Your task to perform on an android device: open the mobile data screen to see how much data has been used Image 0: 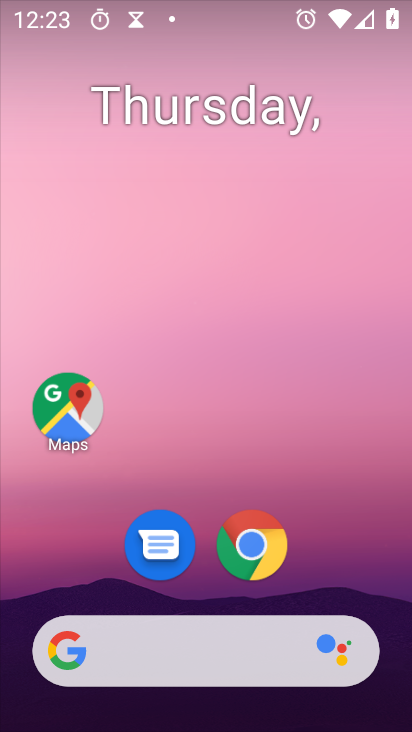
Step 0: press home button
Your task to perform on an android device: open the mobile data screen to see how much data has been used Image 1: 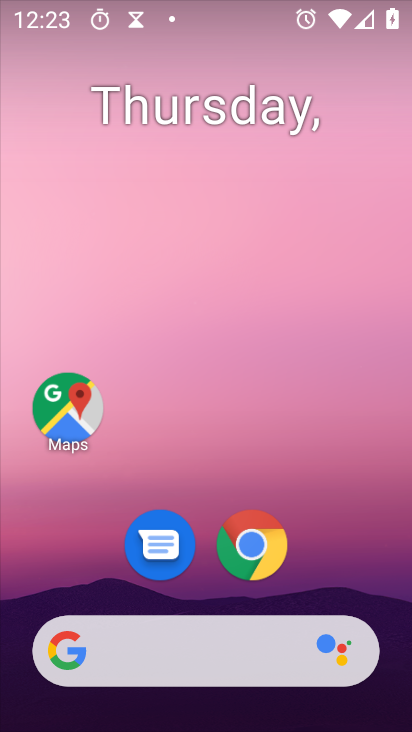
Step 1: drag from (228, 498) to (307, 173)
Your task to perform on an android device: open the mobile data screen to see how much data has been used Image 2: 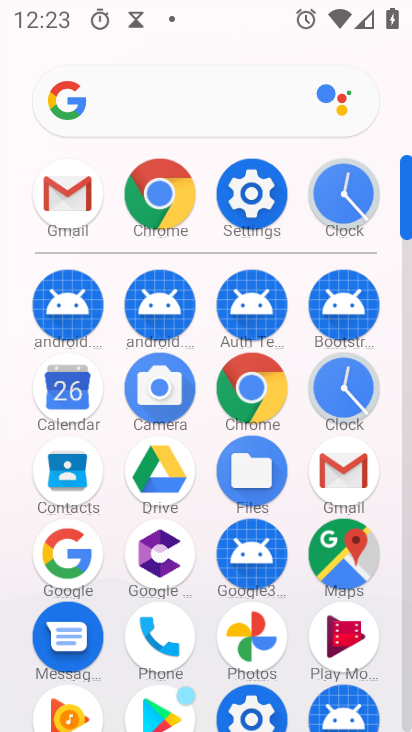
Step 2: click (243, 202)
Your task to perform on an android device: open the mobile data screen to see how much data has been used Image 3: 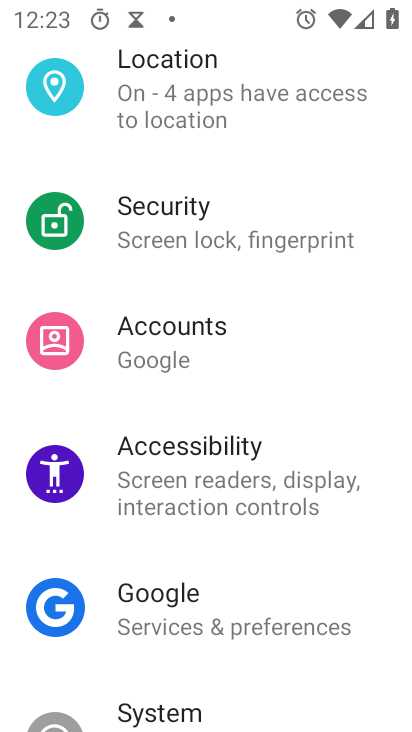
Step 3: drag from (302, 196) to (239, 584)
Your task to perform on an android device: open the mobile data screen to see how much data has been used Image 4: 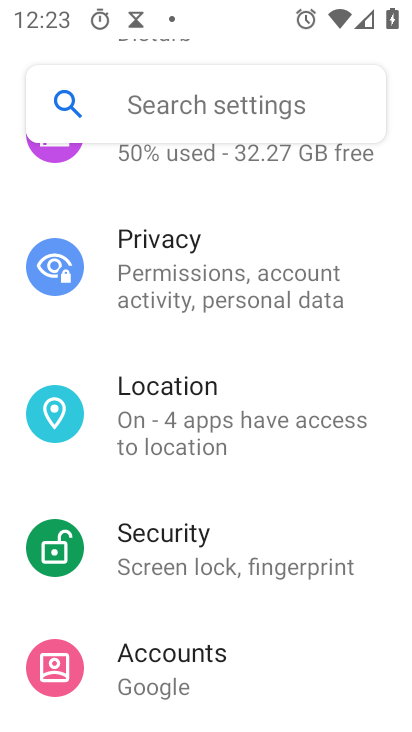
Step 4: drag from (299, 204) to (255, 645)
Your task to perform on an android device: open the mobile data screen to see how much data has been used Image 5: 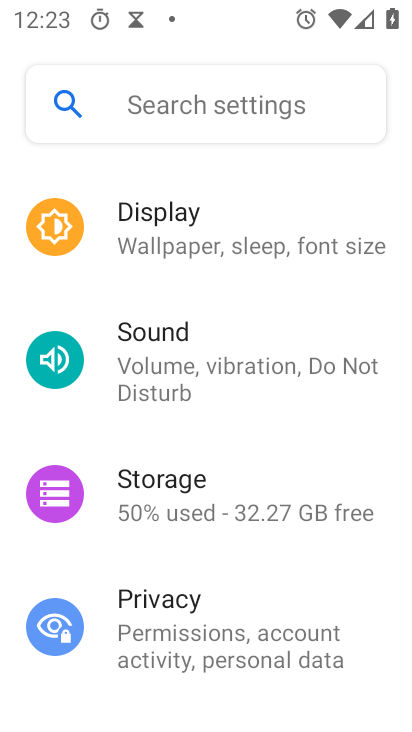
Step 5: drag from (284, 287) to (287, 577)
Your task to perform on an android device: open the mobile data screen to see how much data has been used Image 6: 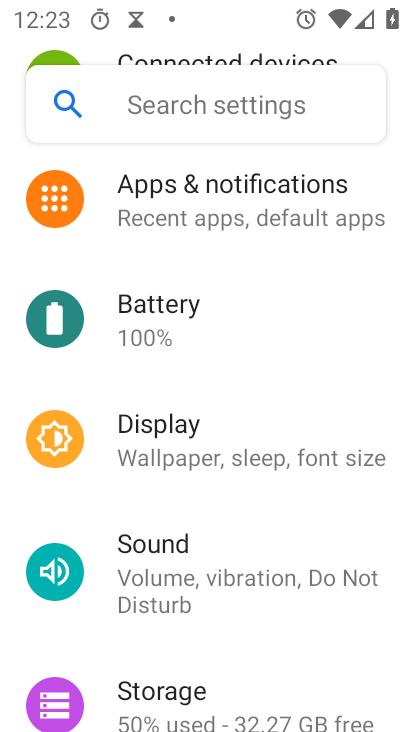
Step 6: drag from (275, 291) to (306, 648)
Your task to perform on an android device: open the mobile data screen to see how much data has been used Image 7: 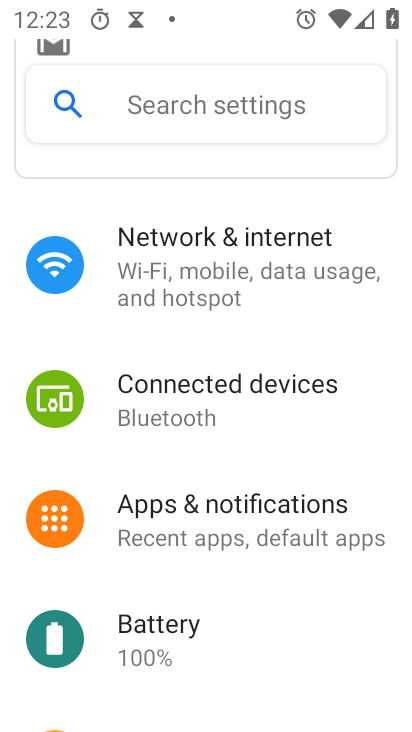
Step 7: click (229, 279)
Your task to perform on an android device: open the mobile data screen to see how much data has been used Image 8: 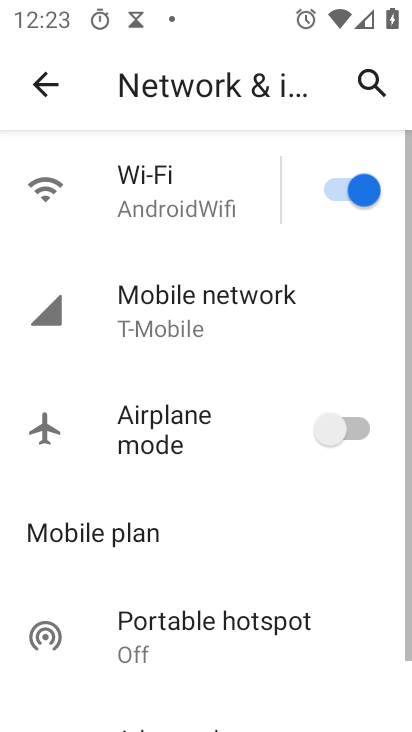
Step 8: click (208, 302)
Your task to perform on an android device: open the mobile data screen to see how much data has been used Image 9: 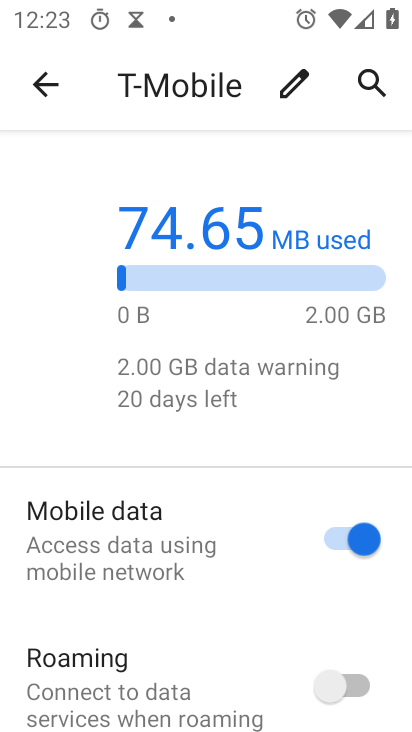
Step 9: task complete